Your task to perform on an android device: find which apps use the phone's location Image 0: 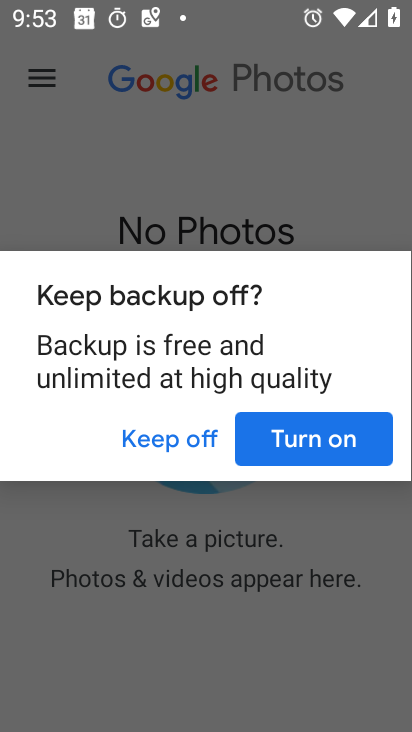
Step 0: press back button
Your task to perform on an android device: find which apps use the phone's location Image 1: 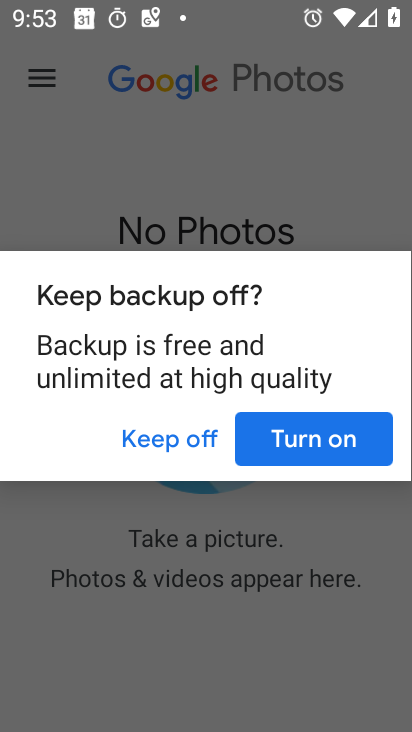
Step 1: press home button
Your task to perform on an android device: find which apps use the phone's location Image 2: 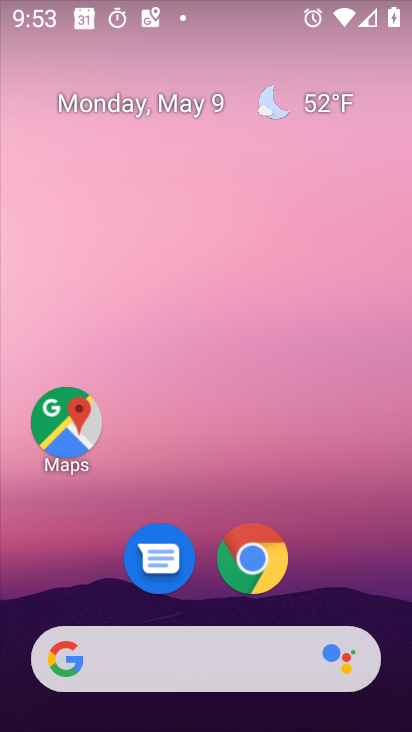
Step 2: drag from (190, 606) to (333, 64)
Your task to perform on an android device: find which apps use the phone's location Image 3: 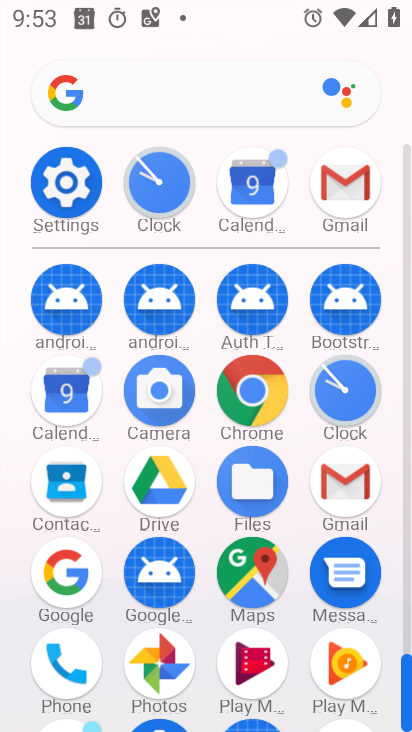
Step 3: click (87, 174)
Your task to perform on an android device: find which apps use the phone's location Image 4: 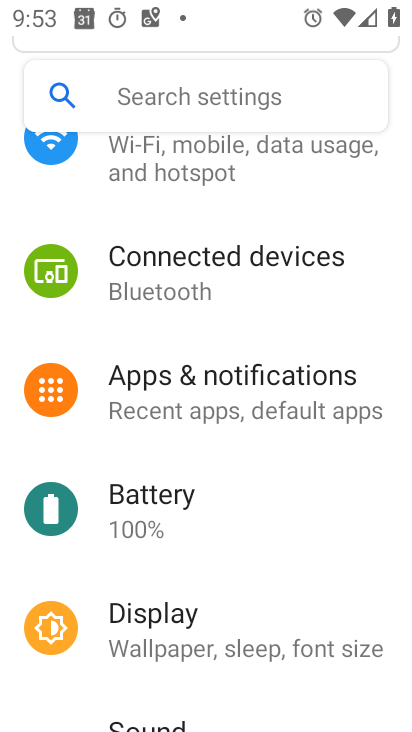
Step 4: drag from (201, 675) to (286, 86)
Your task to perform on an android device: find which apps use the phone's location Image 5: 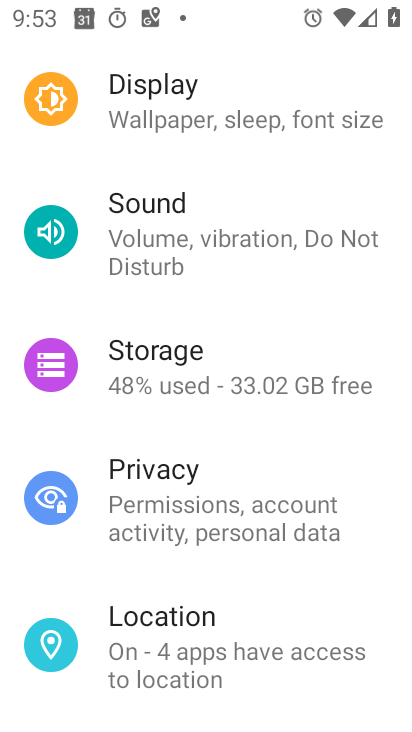
Step 5: click (155, 665)
Your task to perform on an android device: find which apps use the phone's location Image 6: 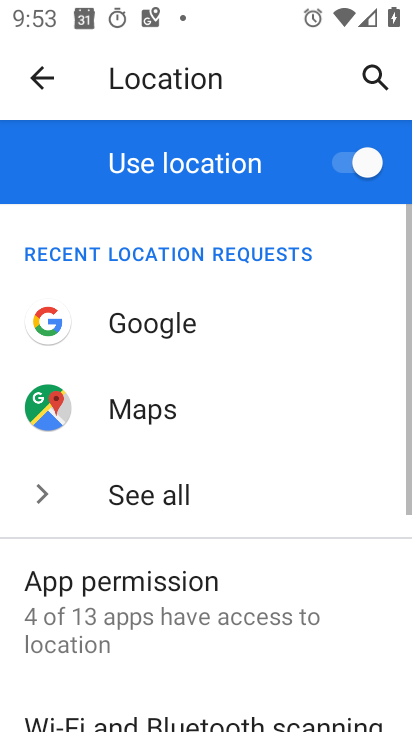
Step 6: click (140, 605)
Your task to perform on an android device: find which apps use the phone's location Image 7: 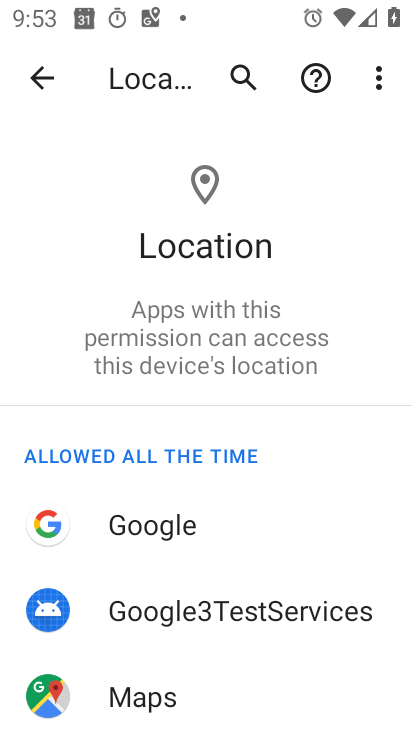
Step 7: task complete